Your task to perform on an android device: change text size in settings app Image 0: 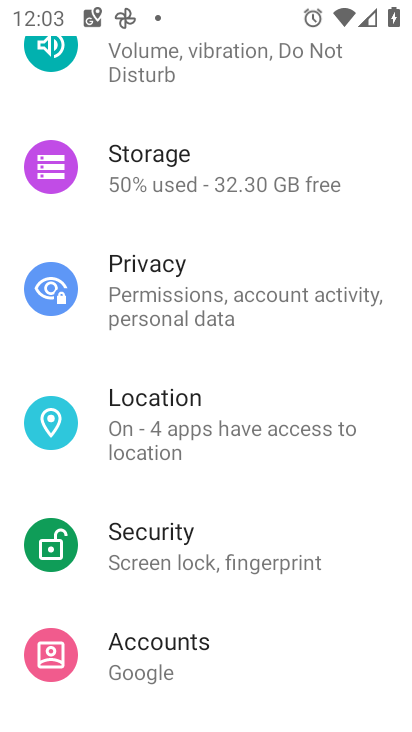
Step 0: press home button
Your task to perform on an android device: change text size in settings app Image 1: 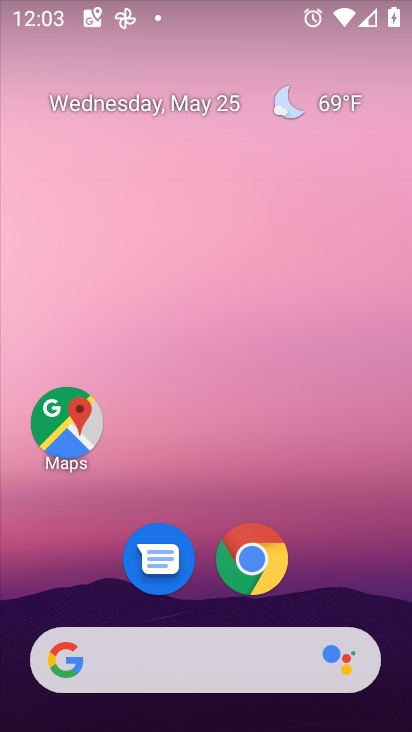
Step 1: drag from (397, 662) to (341, 159)
Your task to perform on an android device: change text size in settings app Image 2: 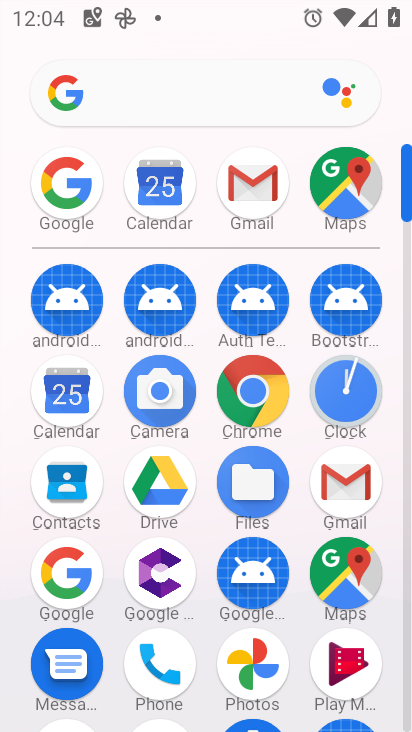
Step 2: drag from (205, 666) to (246, 213)
Your task to perform on an android device: change text size in settings app Image 3: 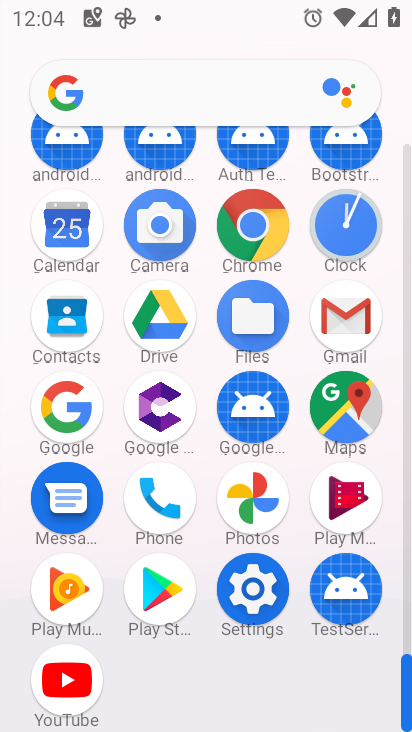
Step 3: click (248, 588)
Your task to perform on an android device: change text size in settings app Image 4: 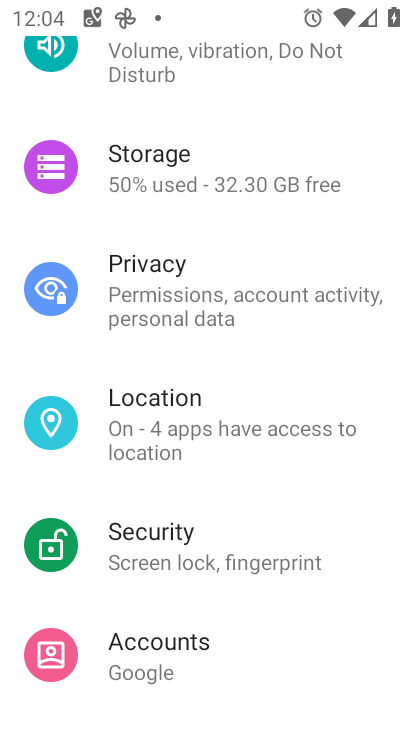
Step 4: drag from (254, 149) to (300, 656)
Your task to perform on an android device: change text size in settings app Image 5: 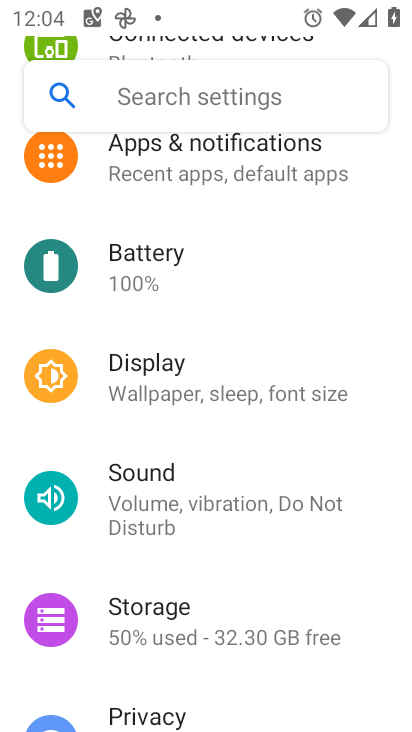
Step 5: click (190, 380)
Your task to perform on an android device: change text size in settings app Image 6: 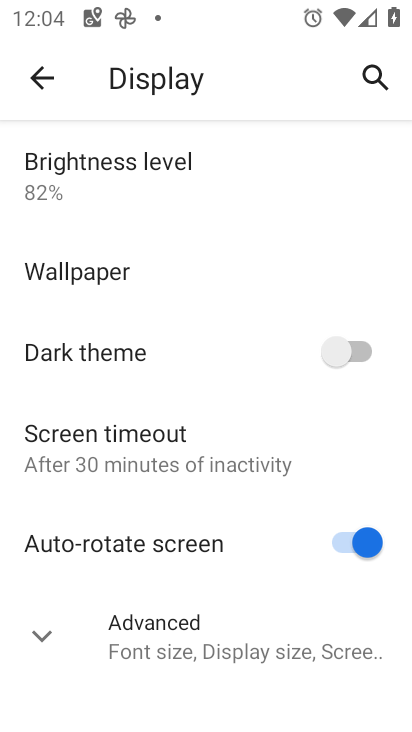
Step 6: click (157, 640)
Your task to perform on an android device: change text size in settings app Image 7: 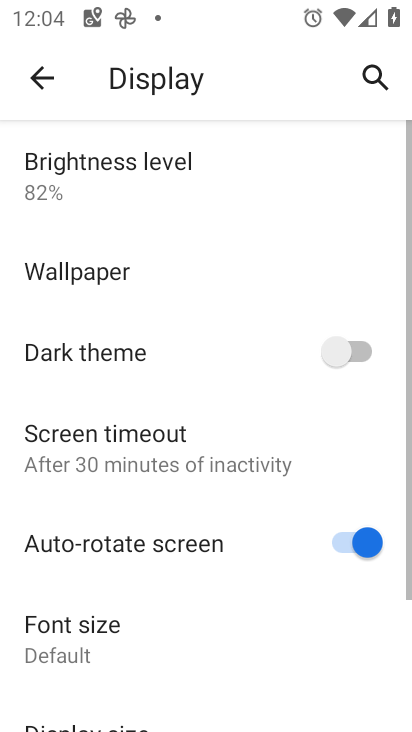
Step 7: drag from (157, 640) to (204, 348)
Your task to perform on an android device: change text size in settings app Image 8: 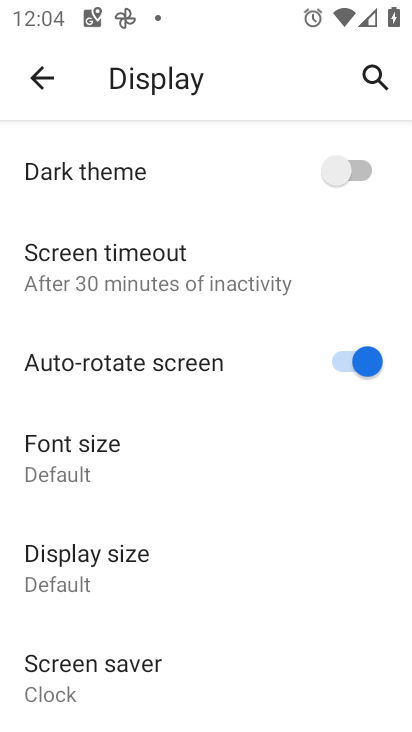
Step 8: click (128, 464)
Your task to perform on an android device: change text size in settings app Image 9: 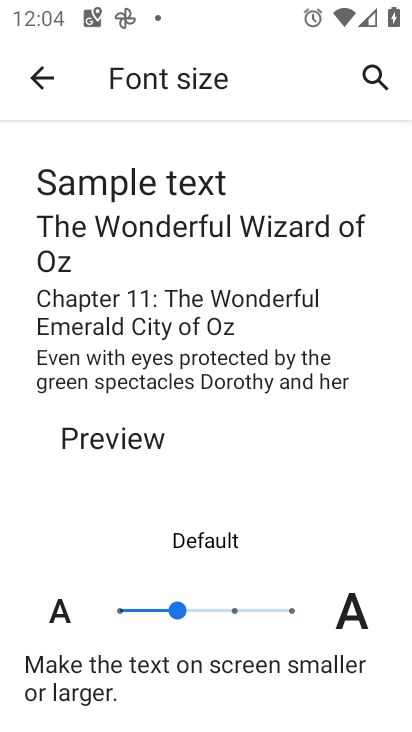
Step 9: click (232, 608)
Your task to perform on an android device: change text size in settings app Image 10: 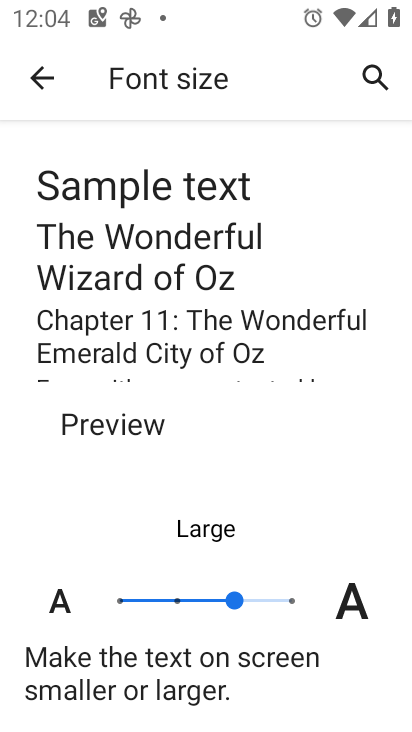
Step 10: task complete